Your task to perform on an android device: Open Yahoo.com Image 0: 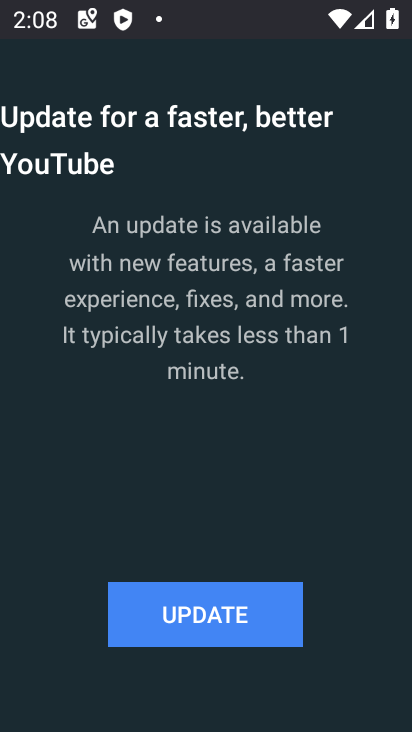
Step 0: press home button
Your task to perform on an android device: Open Yahoo.com Image 1: 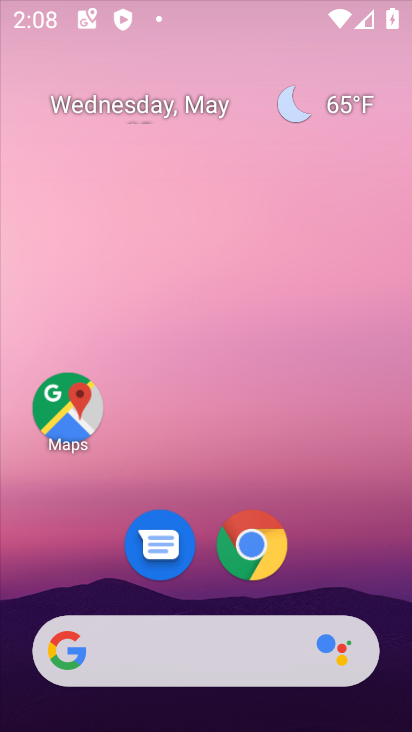
Step 1: click (255, 545)
Your task to perform on an android device: Open Yahoo.com Image 2: 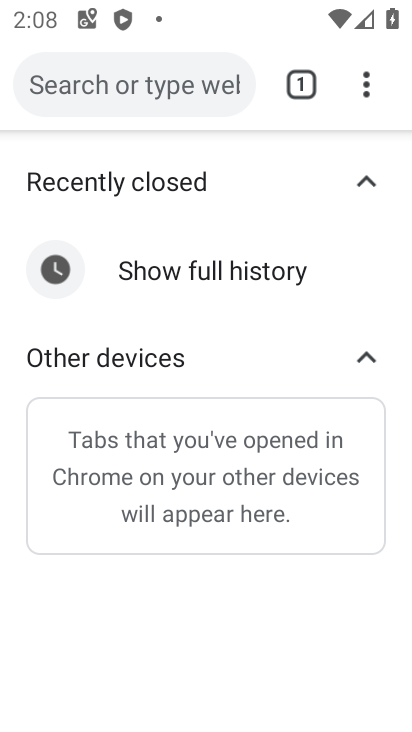
Step 2: click (171, 85)
Your task to perform on an android device: Open Yahoo.com Image 3: 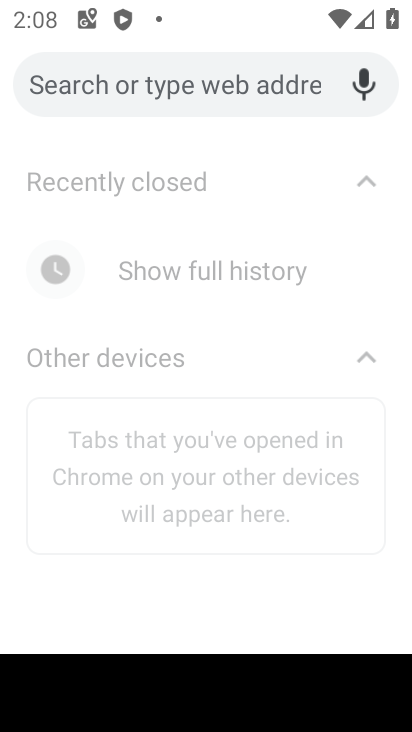
Step 3: type "yahoo.com"
Your task to perform on an android device: Open Yahoo.com Image 4: 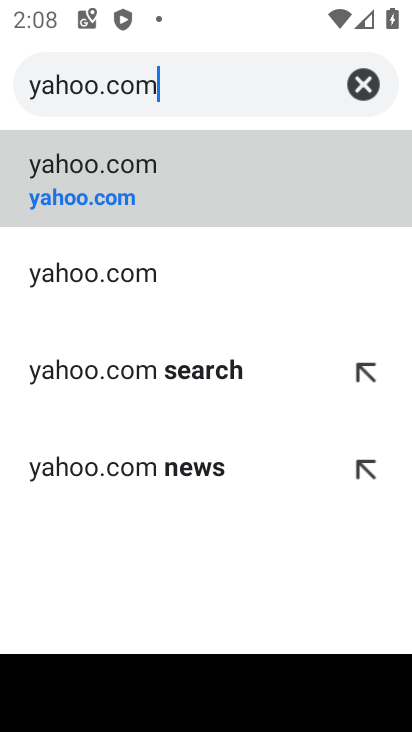
Step 4: click (139, 183)
Your task to perform on an android device: Open Yahoo.com Image 5: 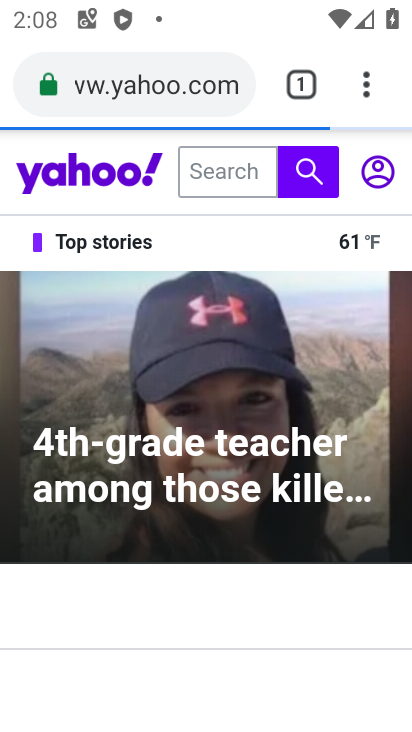
Step 5: task complete